Your task to perform on an android device: turn off notifications in google photos Image 0: 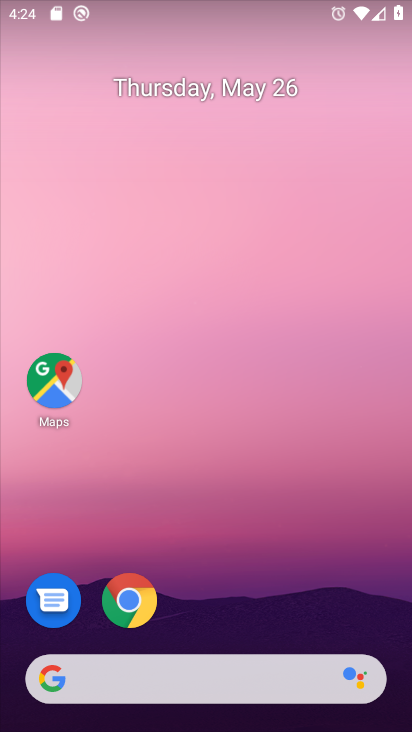
Step 0: drag from (221, 622) to (290, 78)
Your task to perform on an android device: turn off notifications in google photos Image 1: 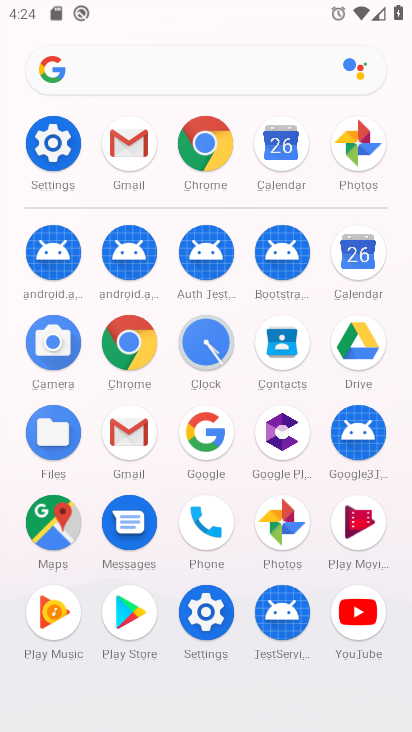
Step 1: click (278, 536)
Your task to perform on an android device: turn off notifications in google photos Image 2: 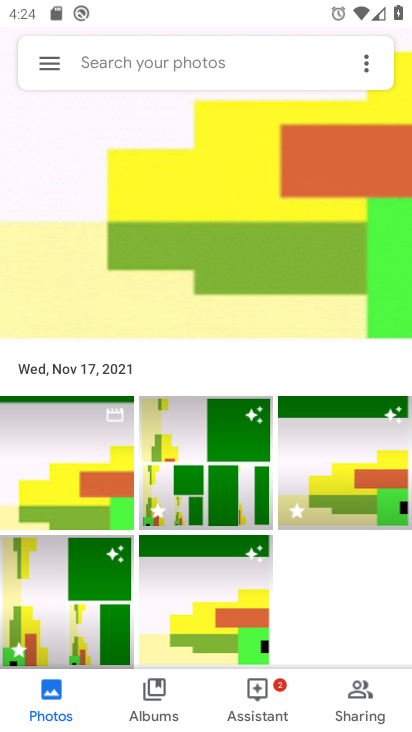
Step 2: click (44, 71)
Your task to perform on an android device: turn off notifications in google photos Image 3: 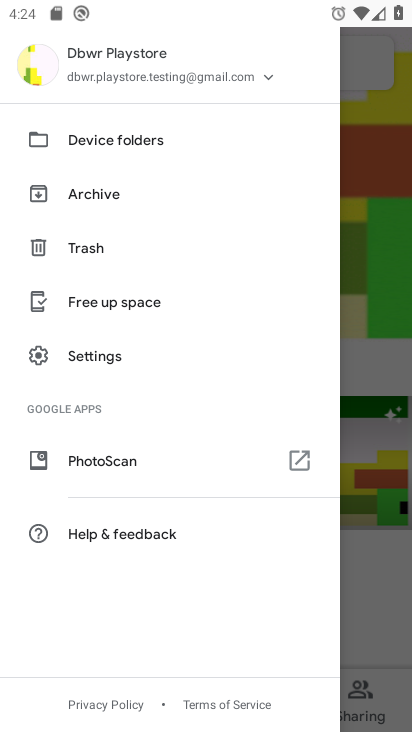
Step 3: click (122, 368)
Your task to perform on an android device: turn off notifications in google photos Image 4: 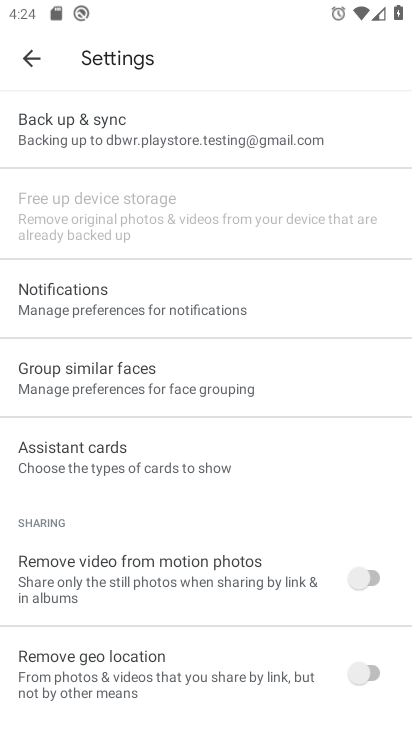
Step 4: click (127, 311)
Your task to perform on an android device: turn off notifications in google photos Image 5: 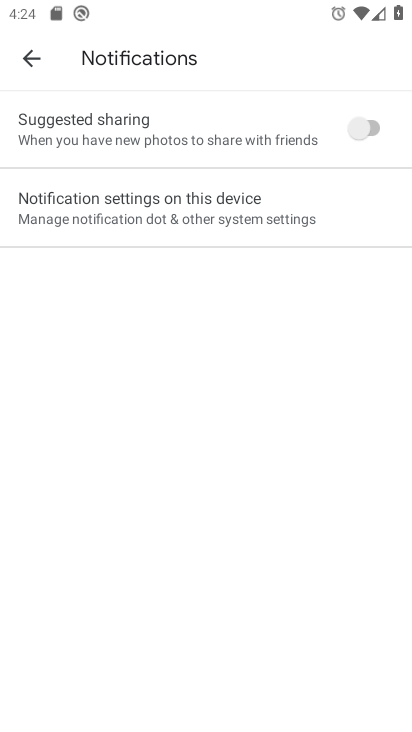
Step 5: click (131, 201)
Your task to perform on an android device: turn off notifications in google photos Image 6: 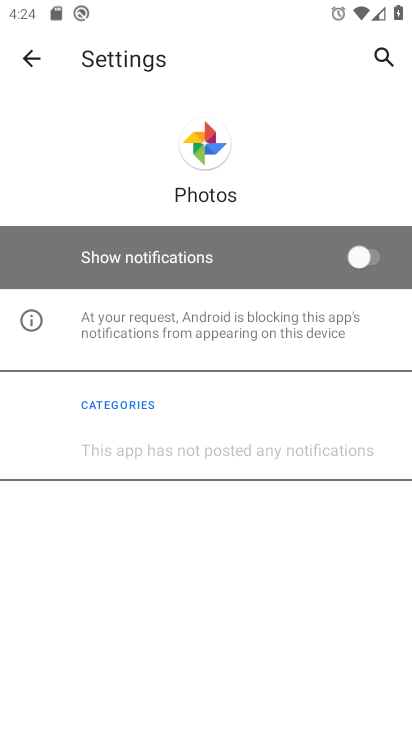
Step 6: task complete